Your task to perform on an android device: Go to location settings Image 0: 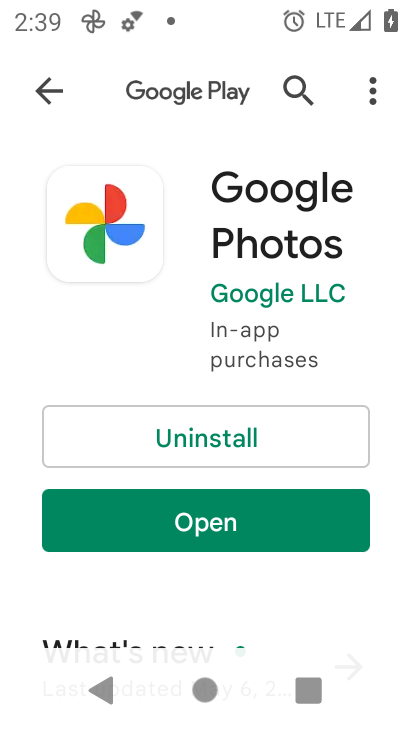
Step 0: press home button
Your task to perform on an android device: Go to location settings Image 1: 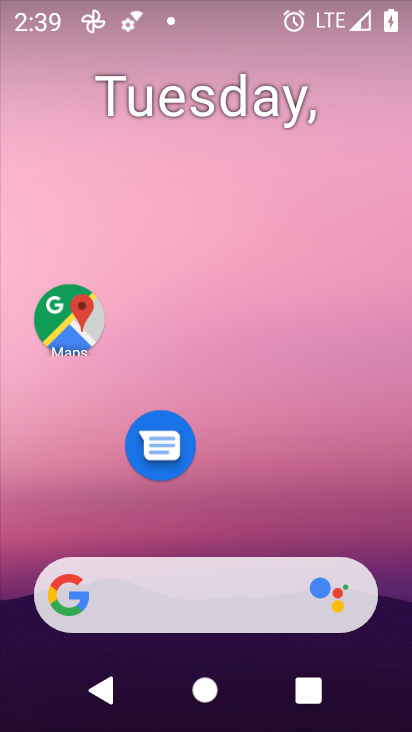
Step 1: drag from (305, 481) to (170, 85)
Your task to perform on an android device: Go to location settings Image 2: 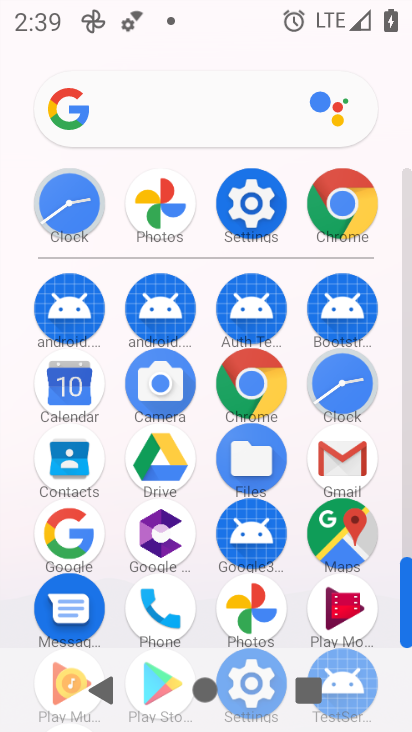
Step 2: click (244, 209)
Your task to perform on an android device: Go to location settings Image 3: 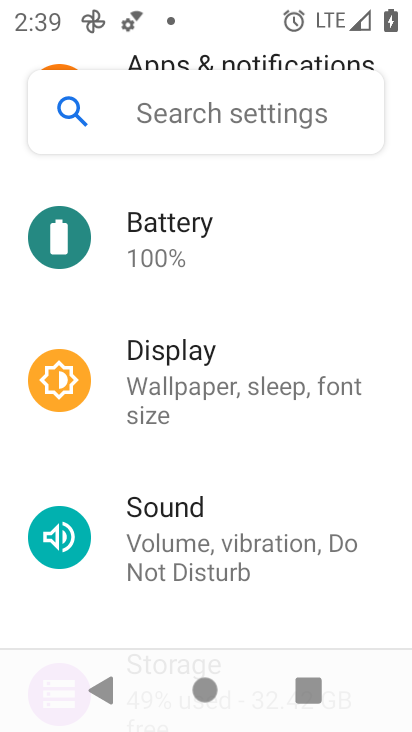
Step 3: drag from (241, 470) to (151, 223)
Your task to perform on an android device: Go to location settings Image 4: 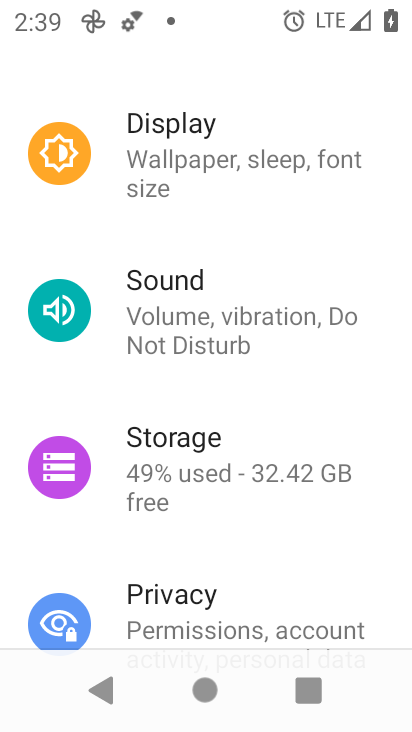
Step 4: drag from (214, 511) to (140, 227)
Your task to perform on an android device: Go to location settings Image 5: 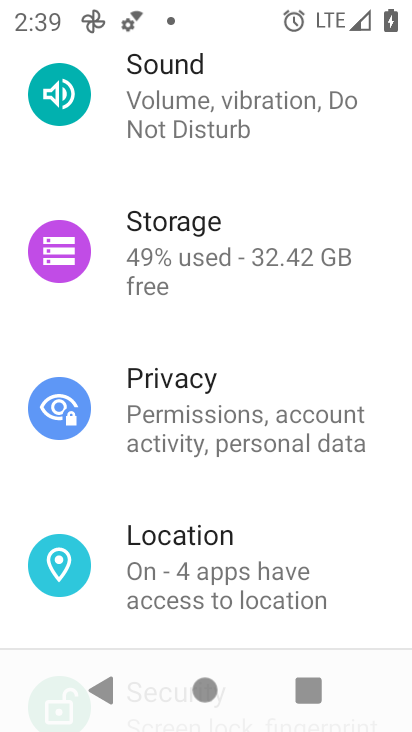
Step 5: click (193, 536)
Your task to perform on an android device: Go to location settings Image 6: 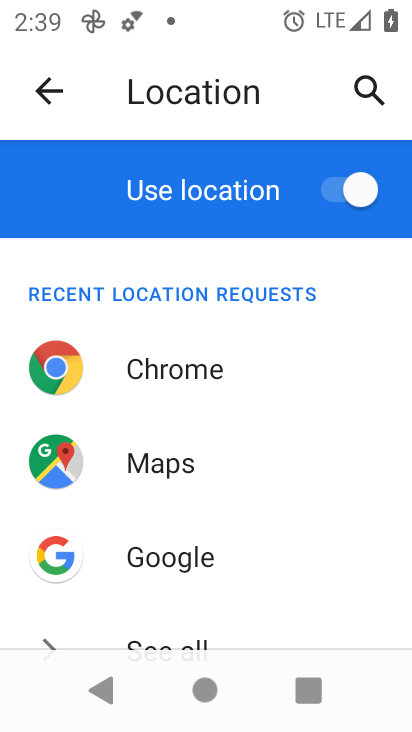
Step 6: task complete